Your task to perform on an android device: Open Wikipedia Image 0: 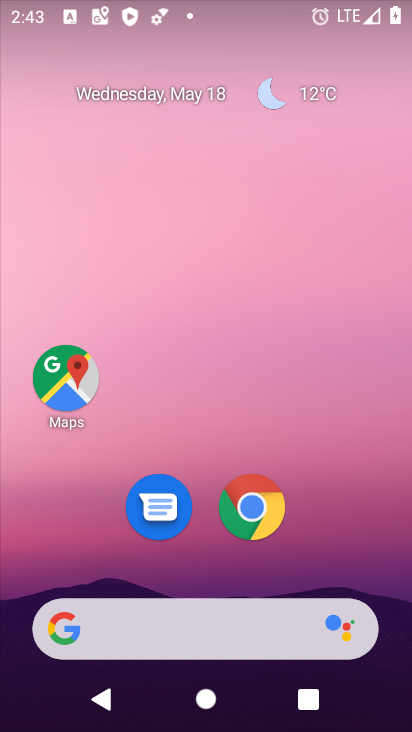
Step 0: click (265, 513)
Your task to perform on an android device: Open Wikipedia Image 1: 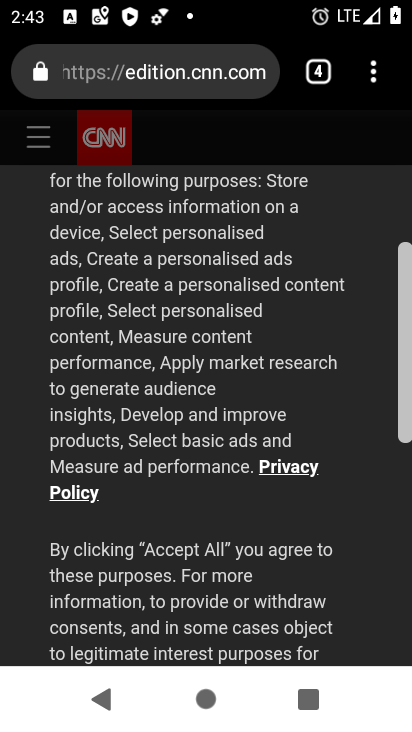
Step 1: click (124, 70)
Your task to perform on an android device: Open Wikipedia Image 2: 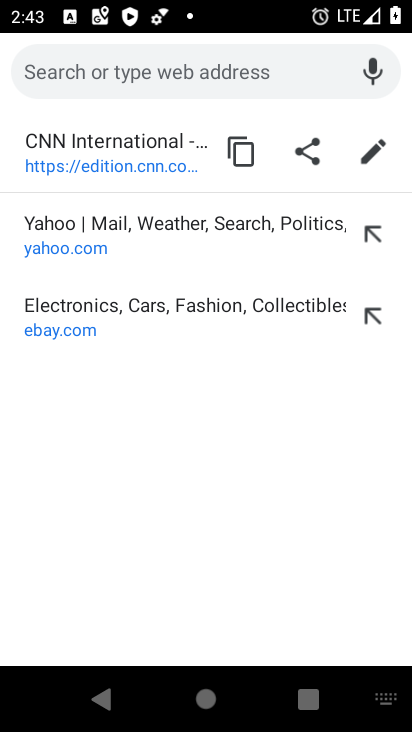
Step 2: type "wikipedia"
Your task to perform on an android device: Open Wikipedia Image 3: 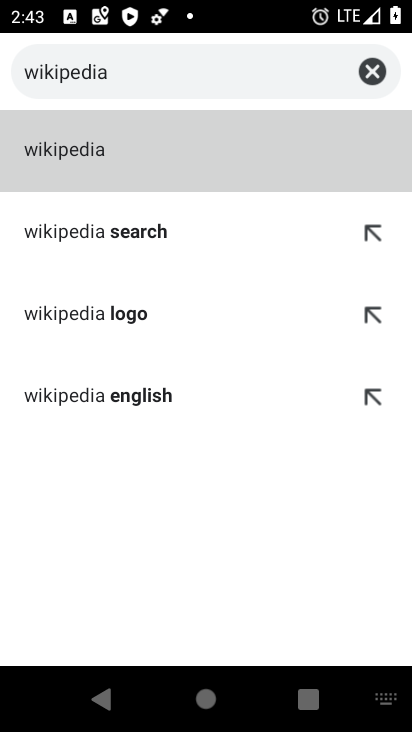
Step 3: click (59, 154)
Your task to perform on an android device: Open Wikipedia Image 4: 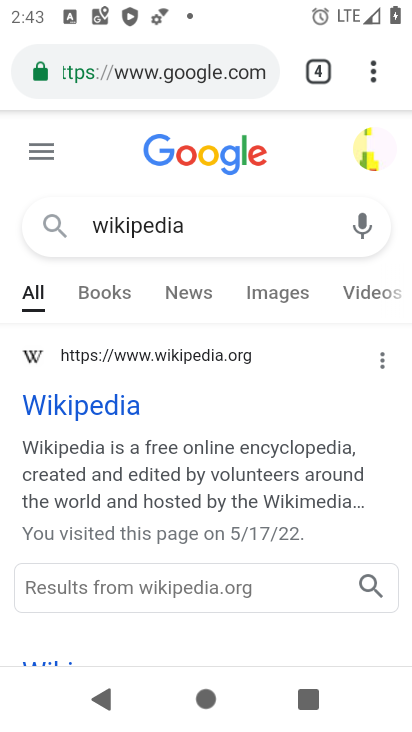
Step 4: click (94, 407)
Your task to perform on an android device: Open Wikipedia Image 5: 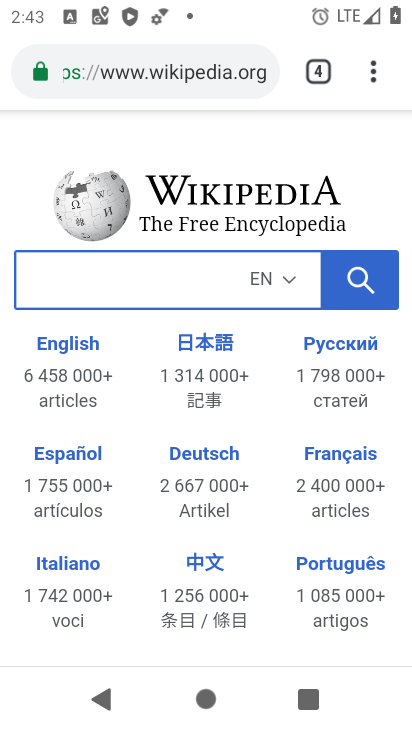
Step 5: task complete